Your task to perform on an android device: Open Google Maps and go to "Timeline" Image 0: 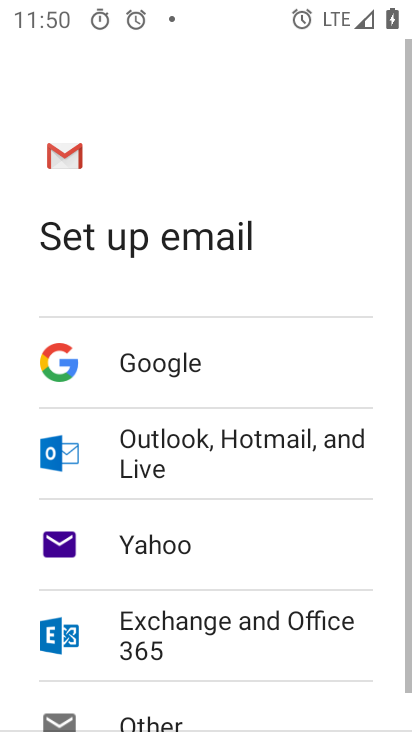
Step 0: press home button
Your task to perform on an android device: Open Google Maps and go to "Timeline" Image 1: 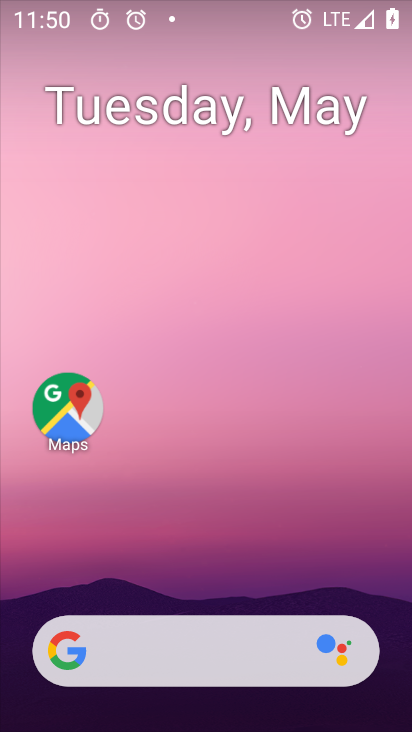
Step 1: click (71, 434)
Your task to perform on an android device: Open Google Maps and go to "Timeline" Image 2: 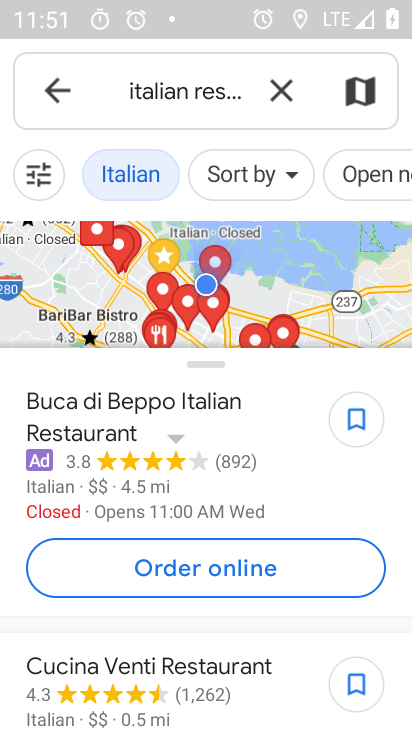
Step 2: click (69, 88)
Your task to perform on an android device: Open Google Maps and go to "Timeline" Image 3: 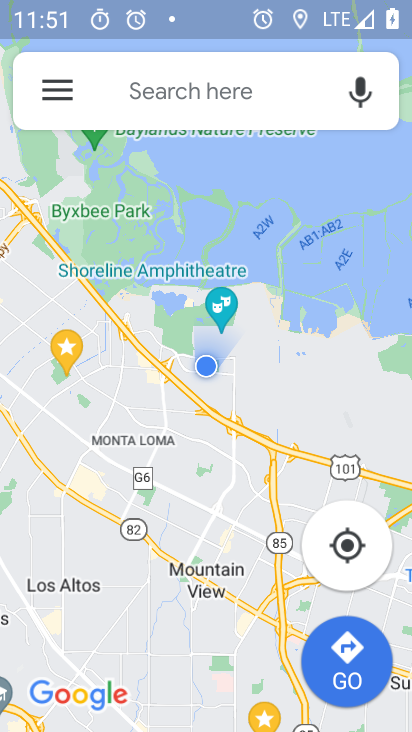
Step 3: click (64, 78)
Your task to perform on an android device: Open Google Maps and go to "Timeline" Image 4: 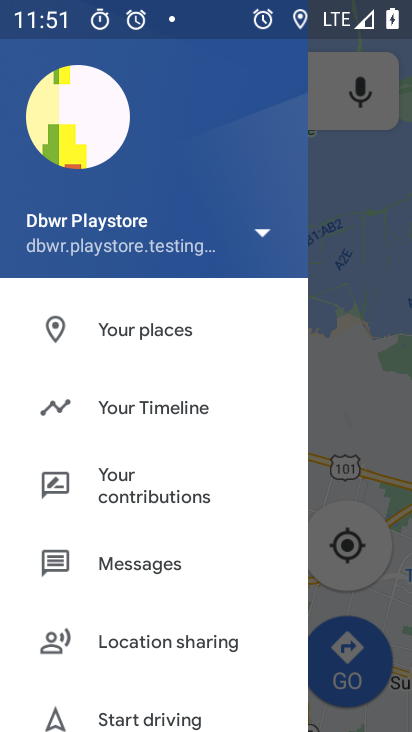
Step 4: click (149, 414)
Your task to perform on an android device: Open Google Maps and go to "Timeline" Image 5: 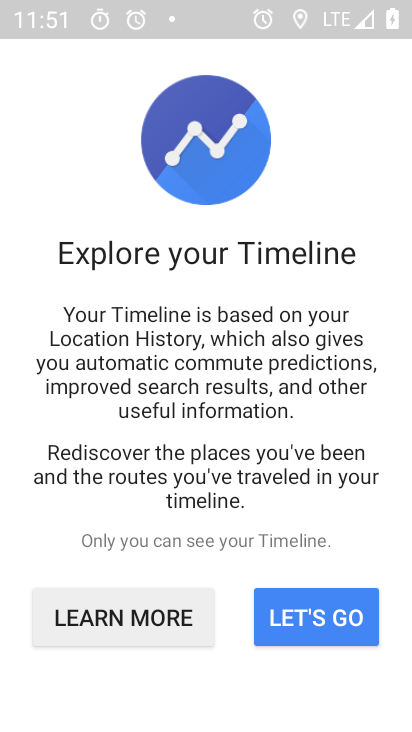
Step 5: click (285, 622)
Your task to perform on an android device: Open Google Maps and go to "Timeline" Image 6: 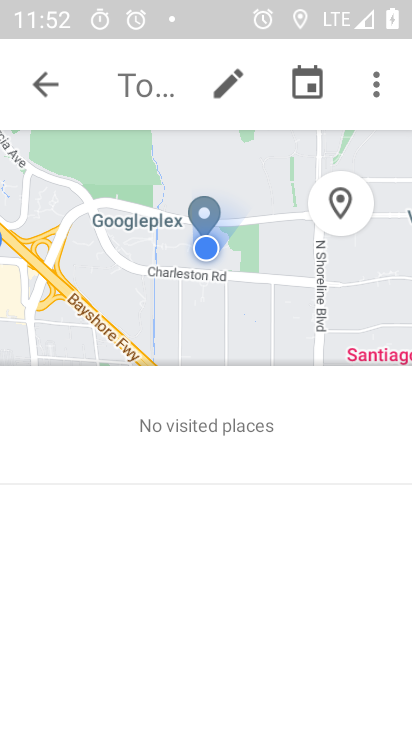
Step 6: task complete